Your task to perform on an android device: allow notifications from all sites in the chrome app Image 0: 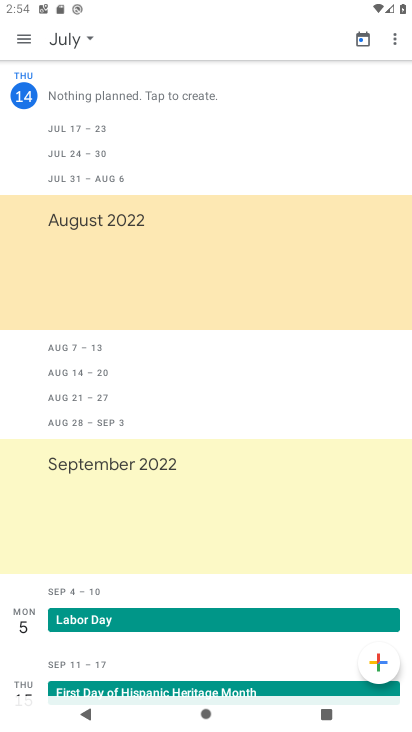
Step 0: press home button
Your task to perform on an android device: allow notifications from all sites in the chrome app Image 1: 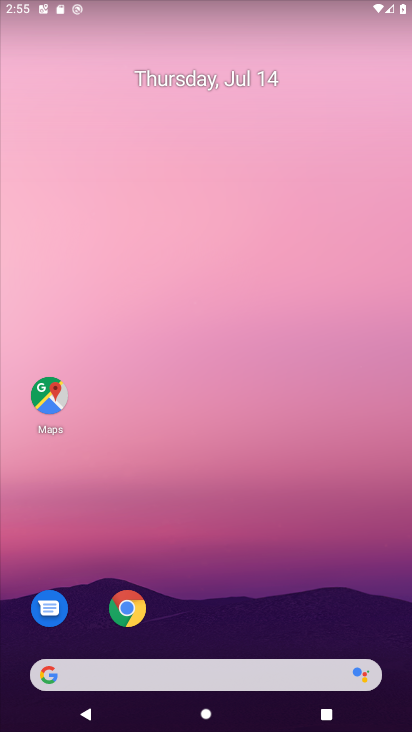
Step 1: drag from (234, 602) to (252, 105)
Your task to perform on an android device: allow notifications from all sites in the chrome app Image 2: 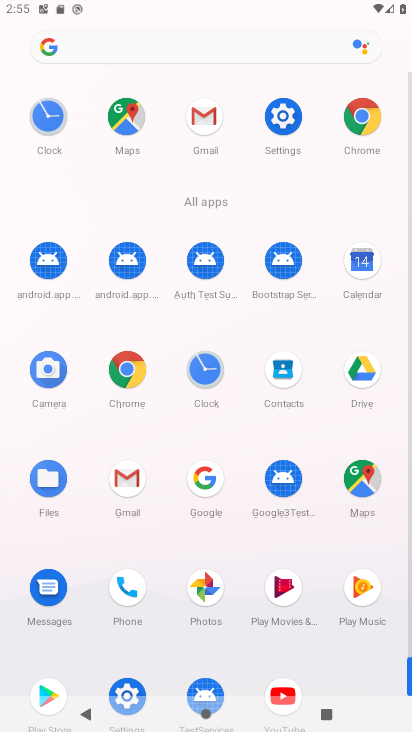
Step 2: click (127, 363)
Your task to perform on an android device: allow notifications from all sites in the chrome app Image 3: 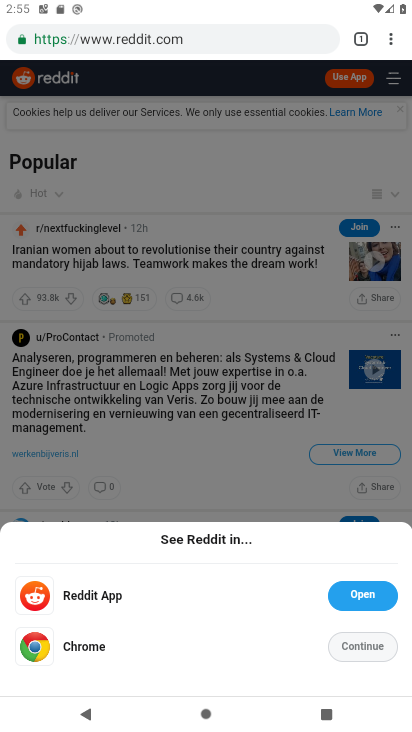
Step 3: drag from (391, 33) to (280, 460)
Your task to perform on an android device: allow notifications from all sites in the chrome app Image 4: 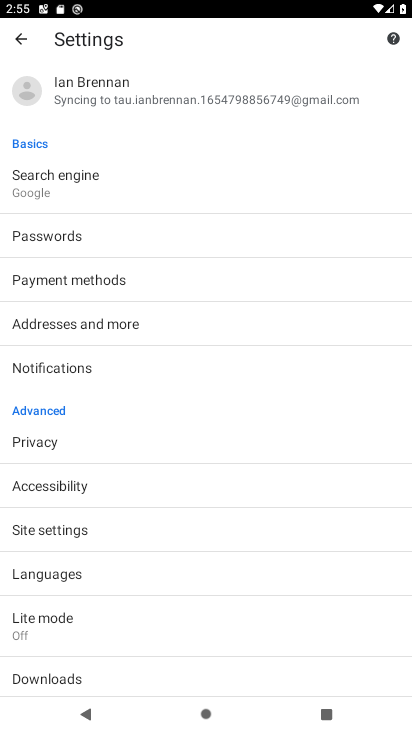
Step 4: click (85, 527)
Your task to perform on an android device: allow notifications from all sites in the chrome app Image 5: 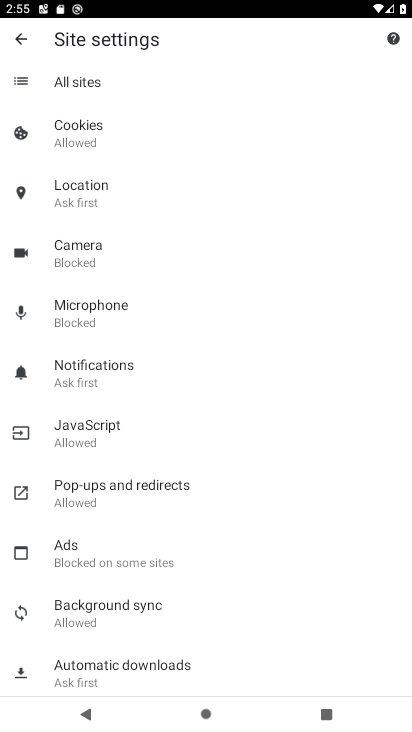
Step 5: click (79, 97)
Your task to perform on an android device: allow notifications from all sites in the chrome app Image 6: 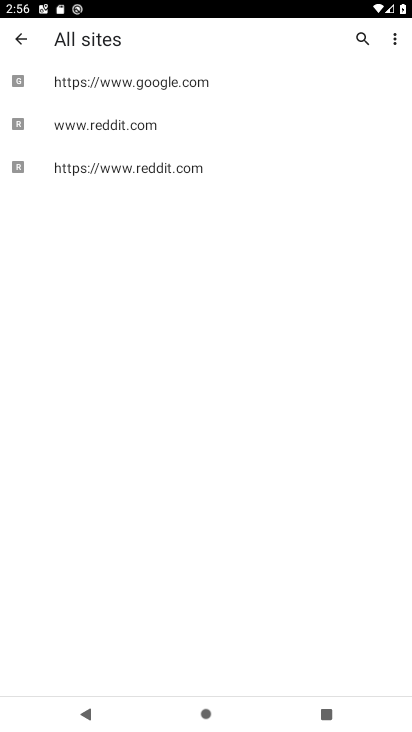
Step 6: click (117, 84)
Your task to perform on an android device: allow notifications from all sites in the chrome app Image 7: 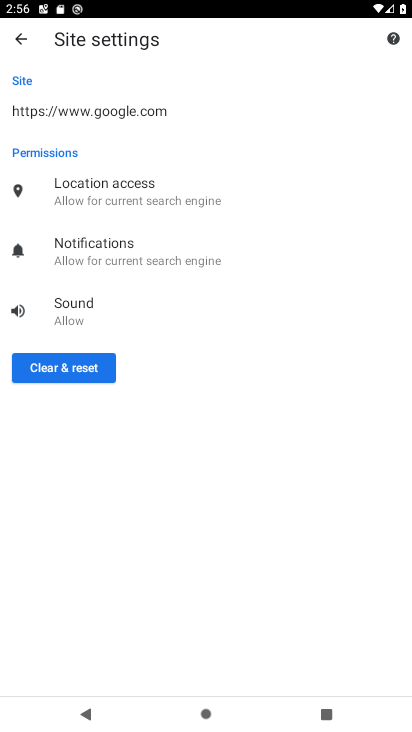
Step 7: click (109, 239)
Your task to perform on an android device: allow notifications from all sites in the chrome app Image 8: 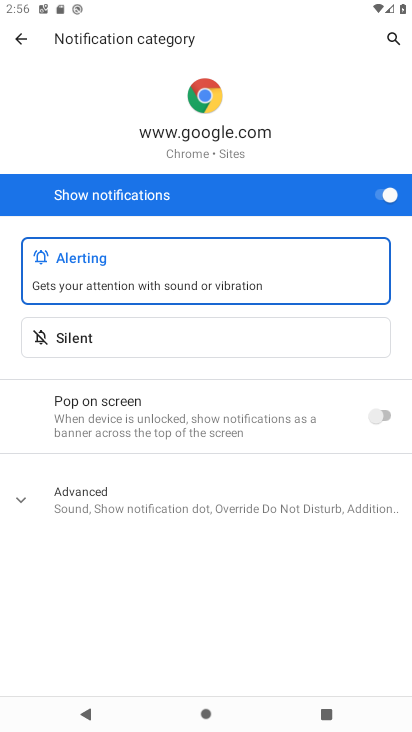
Step 8: task complete